Your task to perform on an android device: Open a new private window in Chrome Image 0: 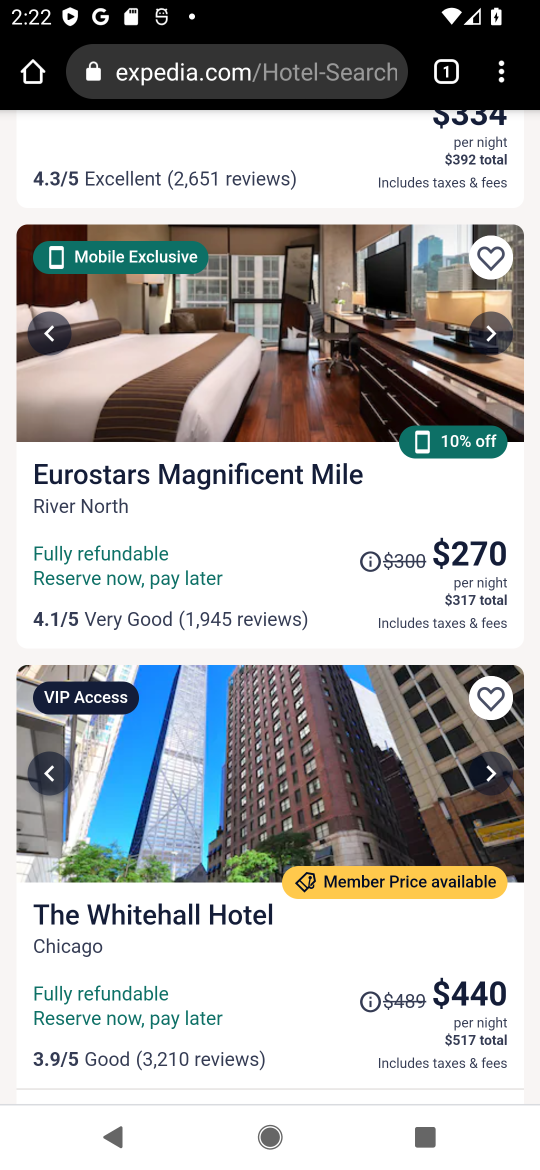
Step 0: click (268, 54)
Your task to perform on an android device: Open a new private window in Chrome Image 1: 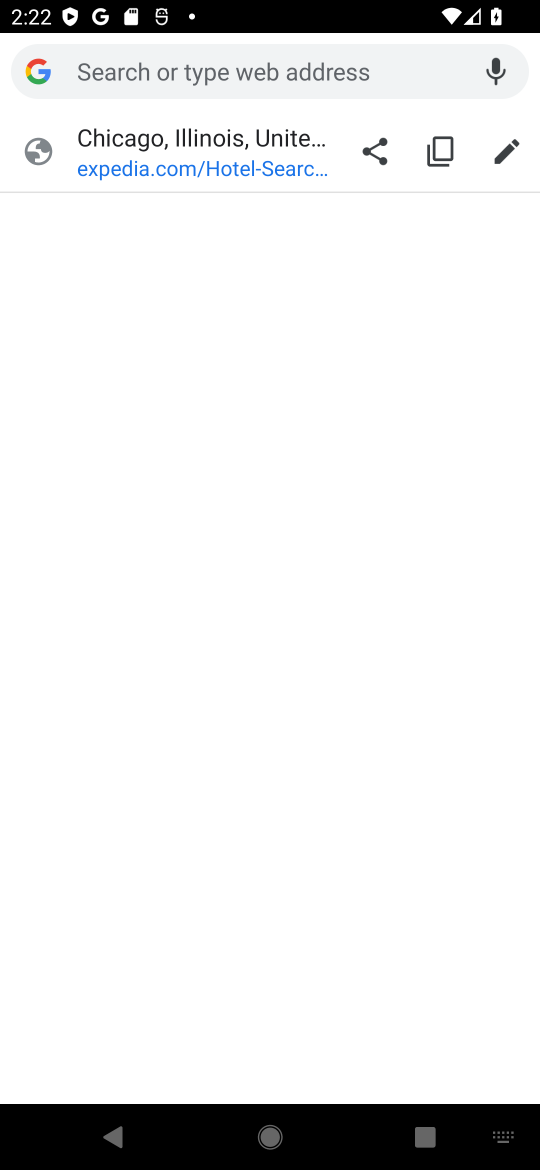
Step 1: press back button
Your task to perform on an android device: Open a new private window in Chrome Image 2: 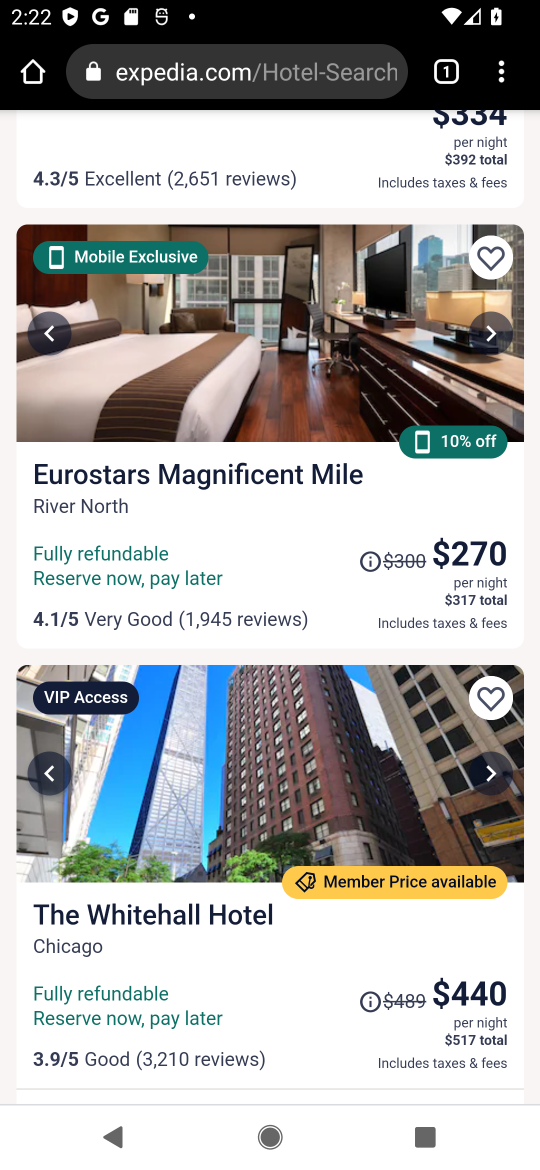
Step 2: click (501, 89)
Your task to perform on an android device: Open a new private window in Chrome Image 3: 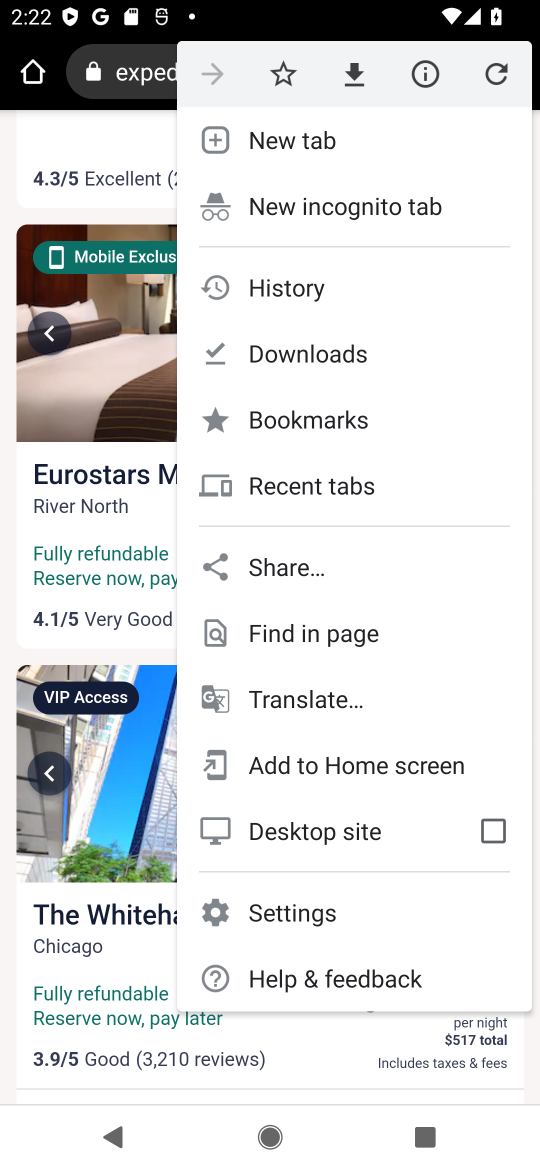
Step 3: click (319, 200)
Your task to perform on an android device: Open a new private window in Chrome Image 4: 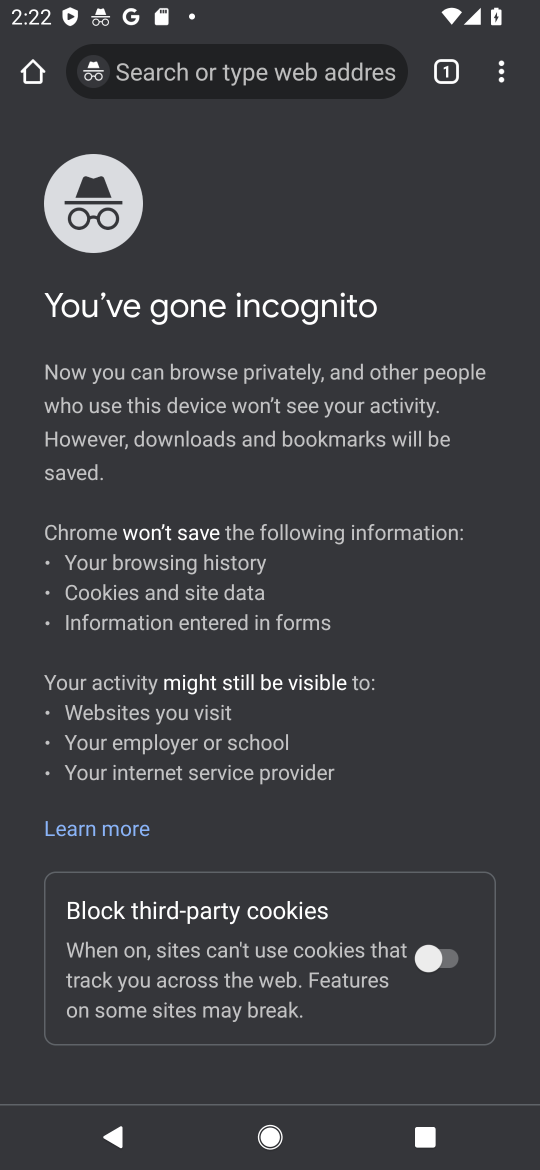
Step 4: task complete